Your task to perform on an android device: open chrome and create a bookmark for the current page Image 0: 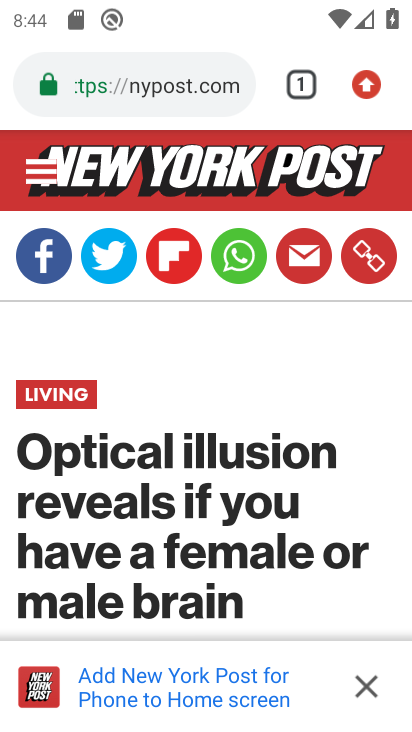
Step 0: press home button
Your task to perform on an android device: open chrome and create a bookmark for the current page Image 1: 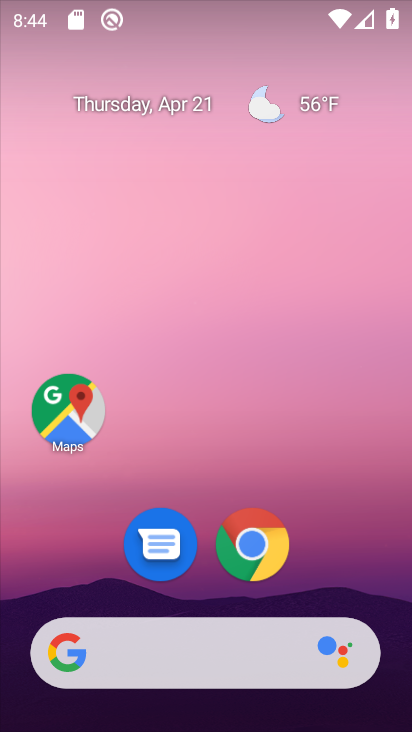
Step 1: click (262, 546)
Your task to perform on an android device: open chrome and create a bookmark for the current page Image 2: 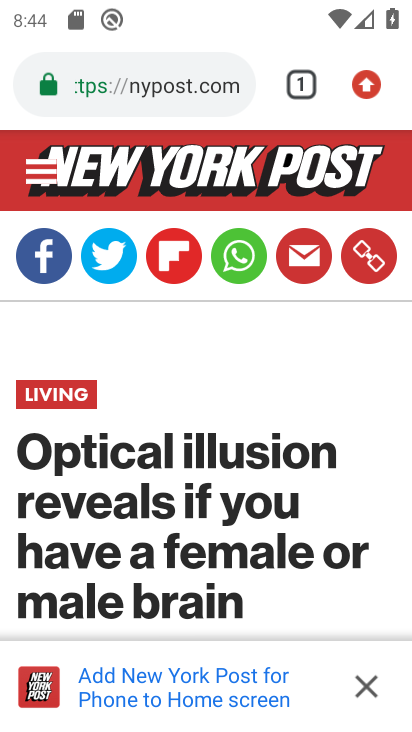
Step 2: click (366, 97)
Your task to perform on an android device: open chrome and create a bookmark for the current page Image 3: 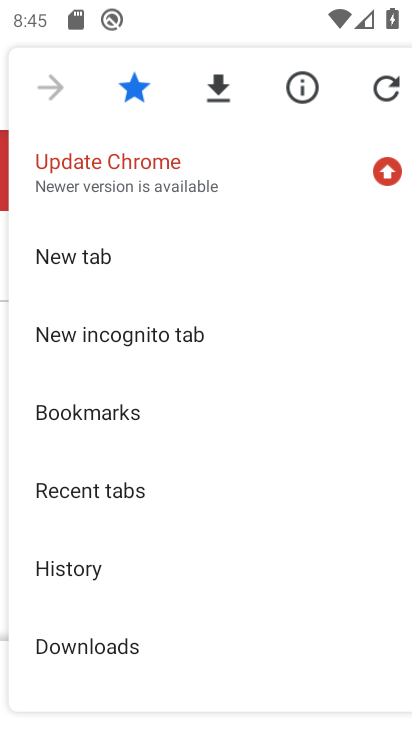
Step 3: click (130, 83)
Your task to perform on an android device: open chrome and create a bookmark for the current page Image 4: 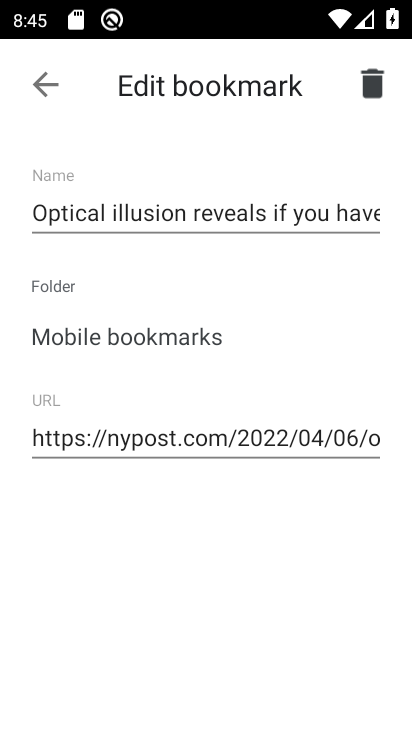
Step 4: click (51, 88)
Your task to perform on an android device: open chrome and create a bookmark for the current page Image 5: 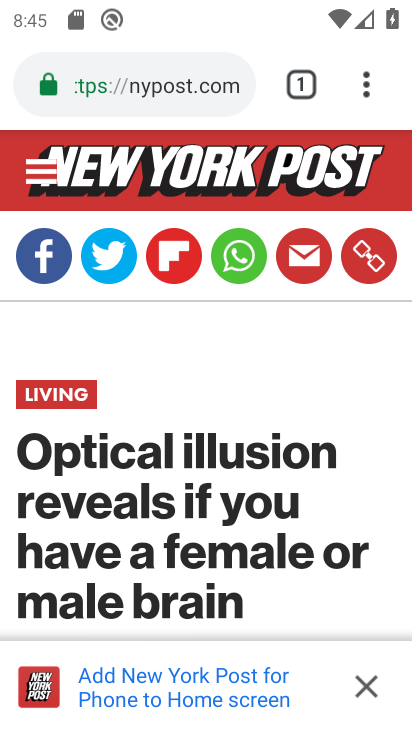
Step 5: task complete